Your task to perform on an android device: change the clock display to digital Image 0: 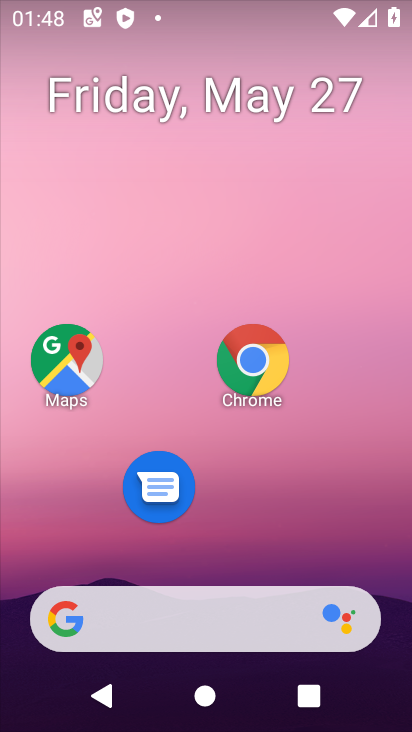
Step 0: drag from (248, 518) to (225, 48)
Your task to perform on an android device: change the clock display to digital Image 1: 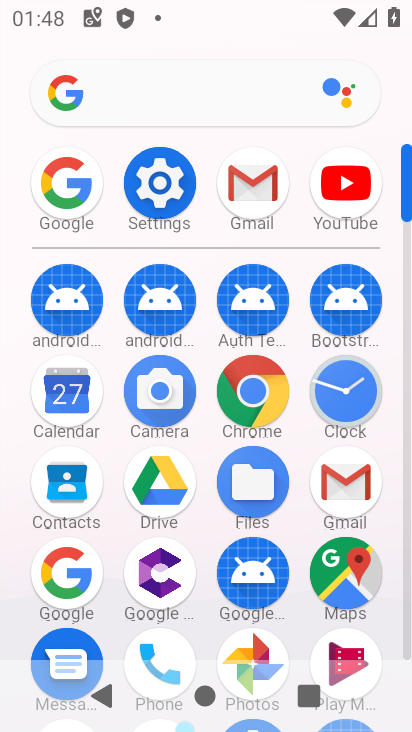
Step 1: click (352, 389)
Your task to perform on an android device: change the clock display to digital Image 2: 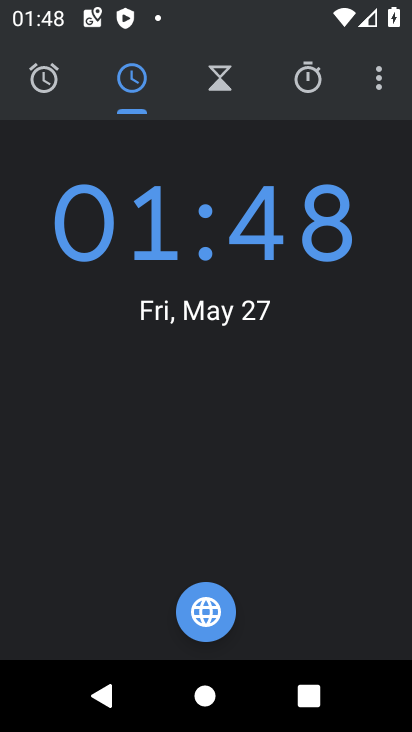
Step 2: click (371, 82)
Your task to perform on an android device: change the clock display to digital Image 3: 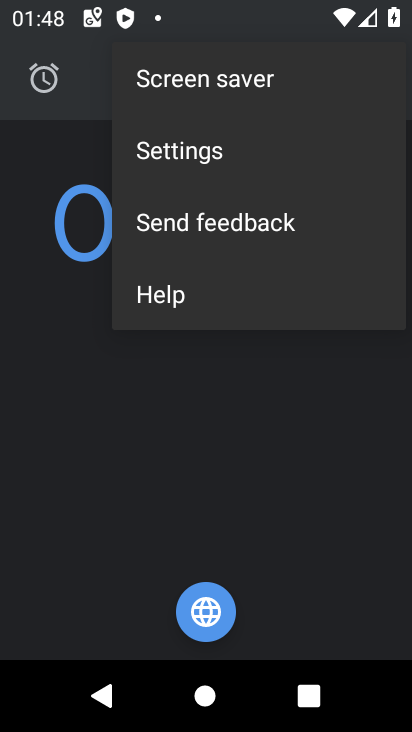
Step 3: click (196, 151)
Your task to perform on an android device: change the clock display to digital Image 4: 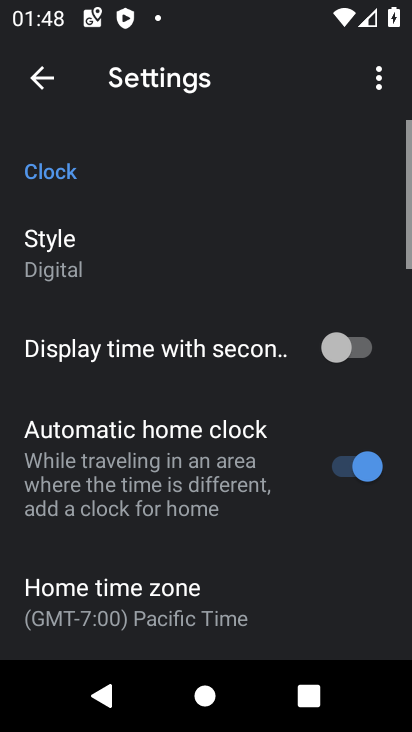
Step 4: click (140, 260)
Your task to perform on an android device: change the clock display to digital Image 5: 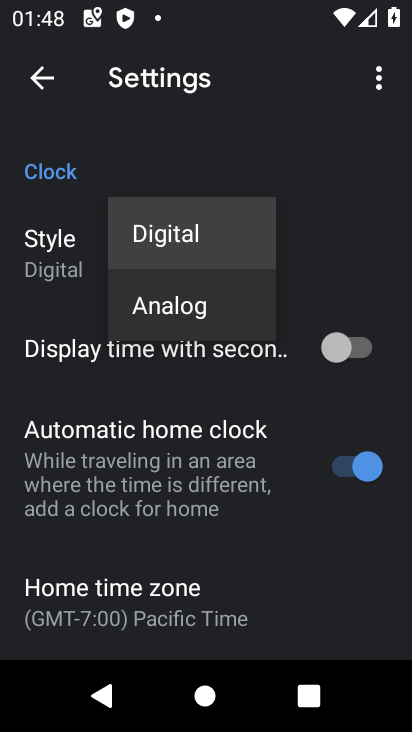
Step 5: task complete